Your task to perform on an android device: Go to wifi settings Image 0: 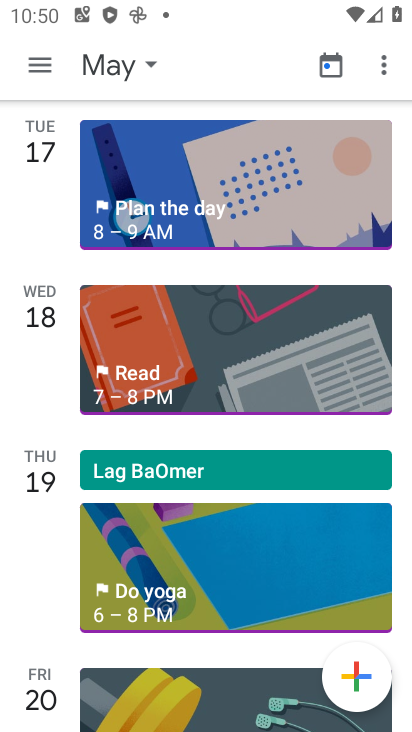
Step 0: press home button
Your task to perform on an android device: Go to wifi settings Image 1: 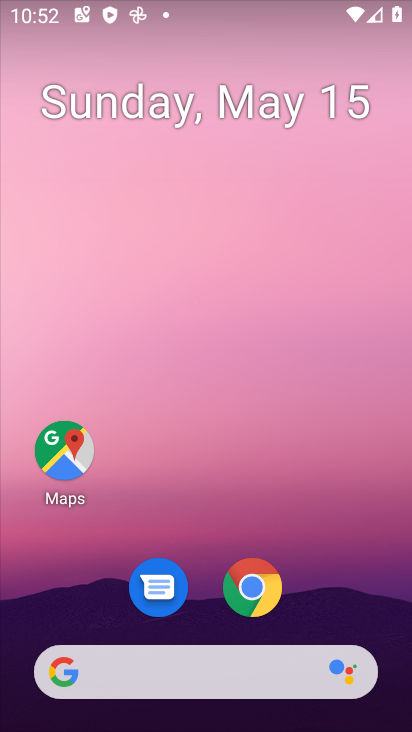
Step 1: drag from (303, 604) to (234, 124)
Your task to perform on an android device: Go to wifi settings Image 2: 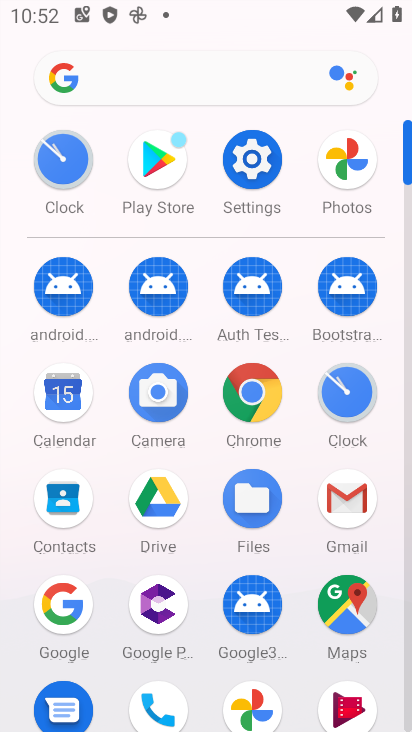
Step 2: click (264, 169)
Your task to perform on an android device: Go to wifi settings Image 3: 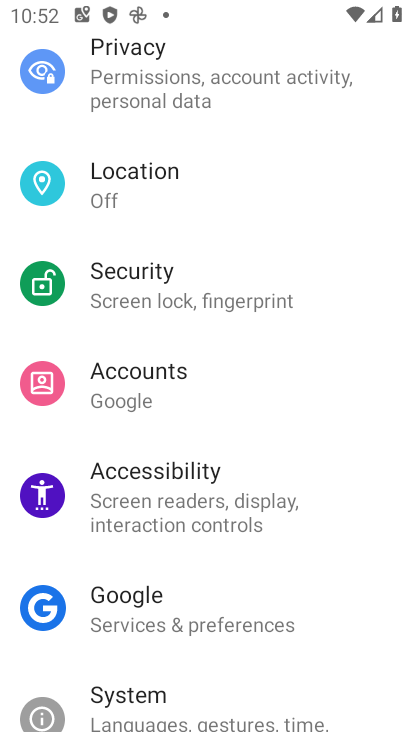
Step 3: drag from (220, 168) to (231, 709)
Your task to perform on an android device: Go to wifi settings Image 4: 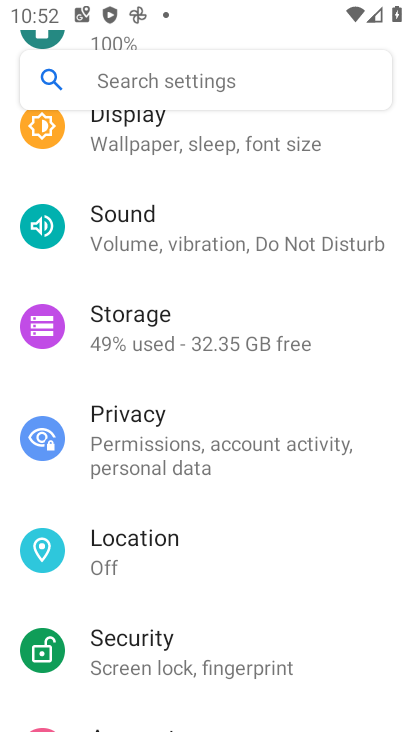
Step 4: drag from (210, 198) to (219, 666)
Your task to perform on an android device: Go to wifi settings Image 5: 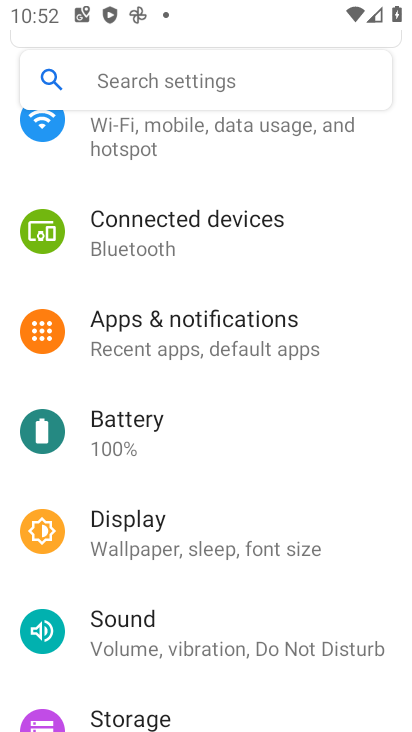
Step 5: drag from (200, 195) to (228, 548)
Your task to perform on an android device: Go to wifi settings Image 6: 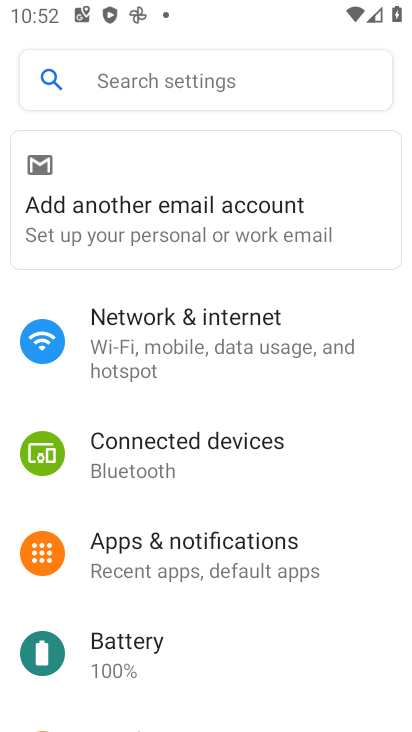
Step 6: click (188, 335)
Your task to perform on an android device: Go to wifi settings Image 7: 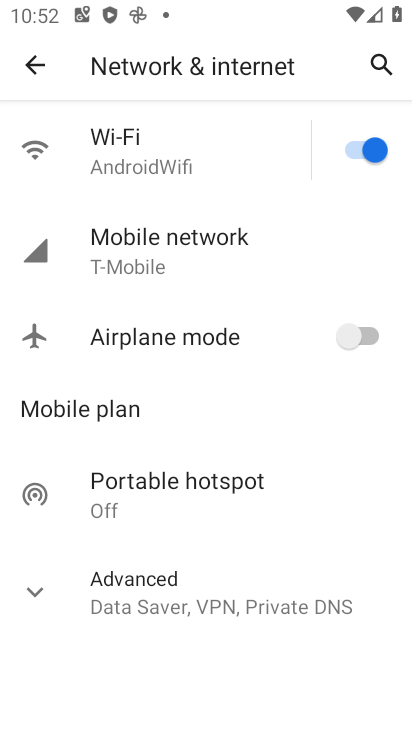
Step 7: click (161, 150)
Your task to perform on an android device: Go to wifi settings Image 8: 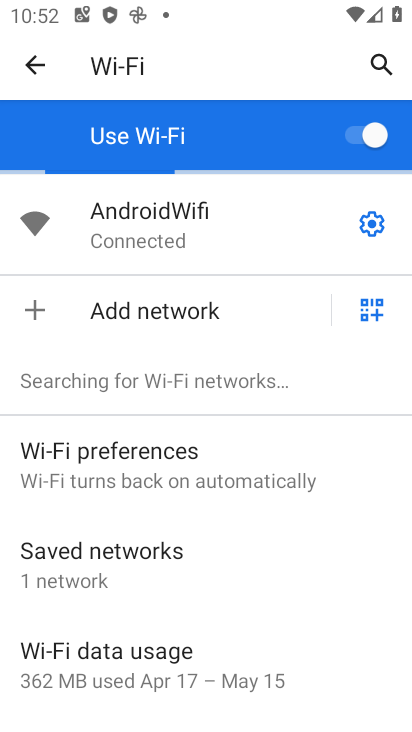
Step 8: task complete